Your task to perform on an android device: Open Google Chrome Image 0: 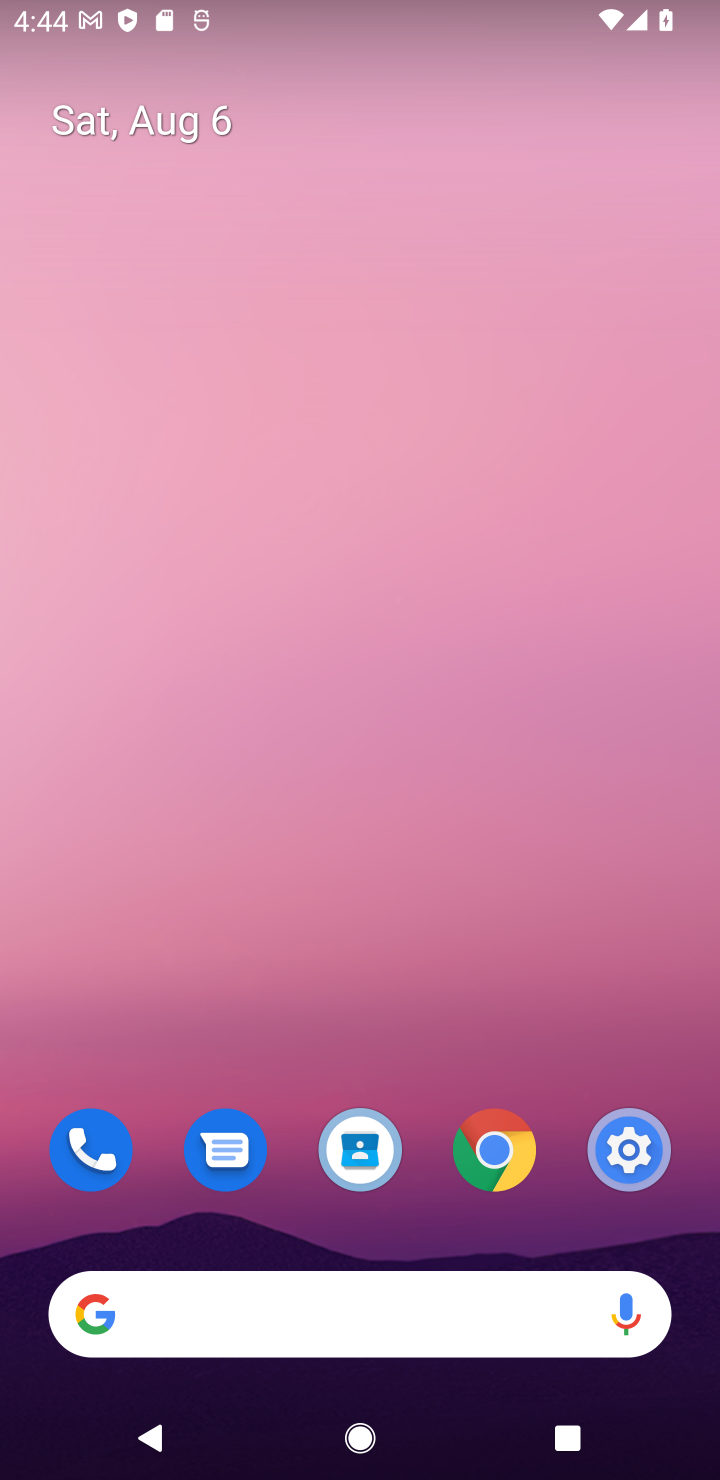
Step 0: click (485, 1146)
Your task to perform on an android device: Open Google Chrome Image 1: 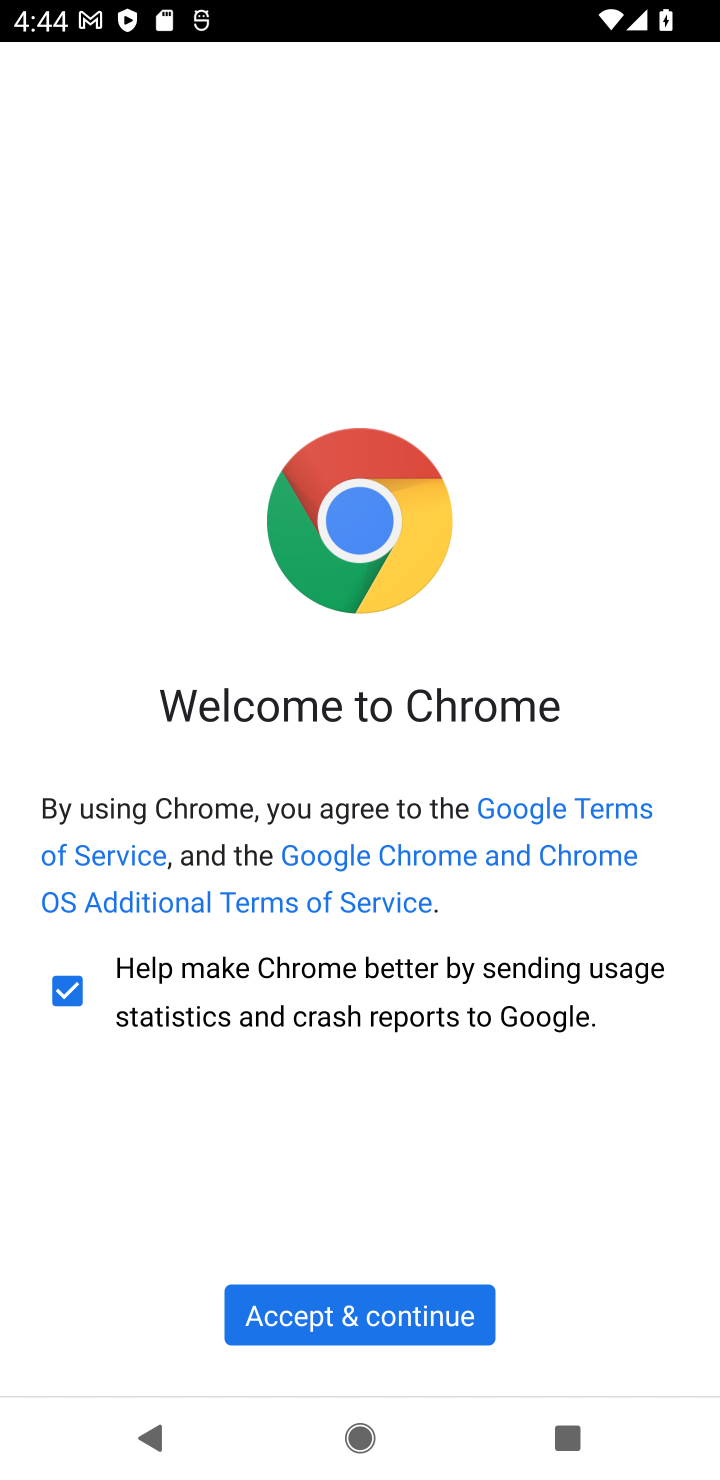
Step 1: click (376, 1299)
Your task to perform on an android device: Open Google Chrome Image 2: 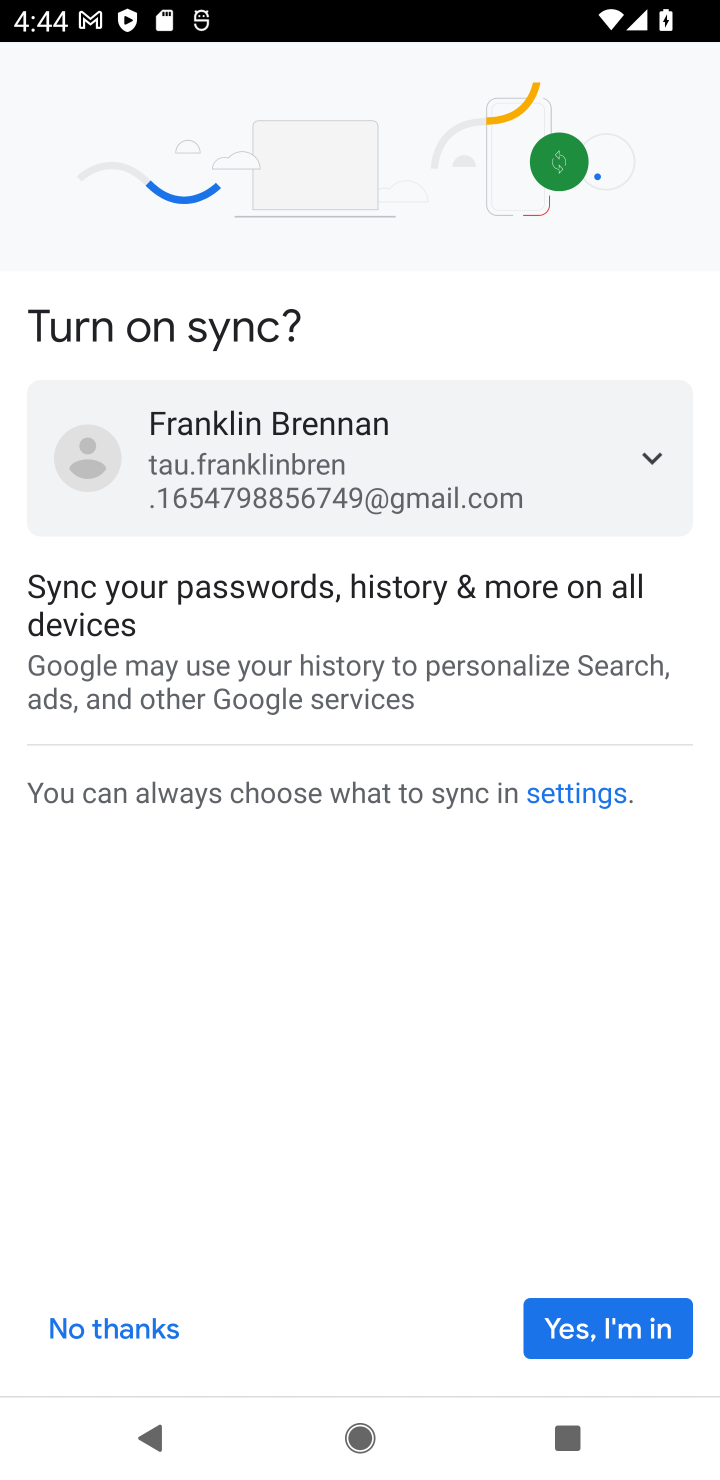
Step 2: click (558, 1350)
Your task to perform on an android device: Open Google Chrome Image 3: 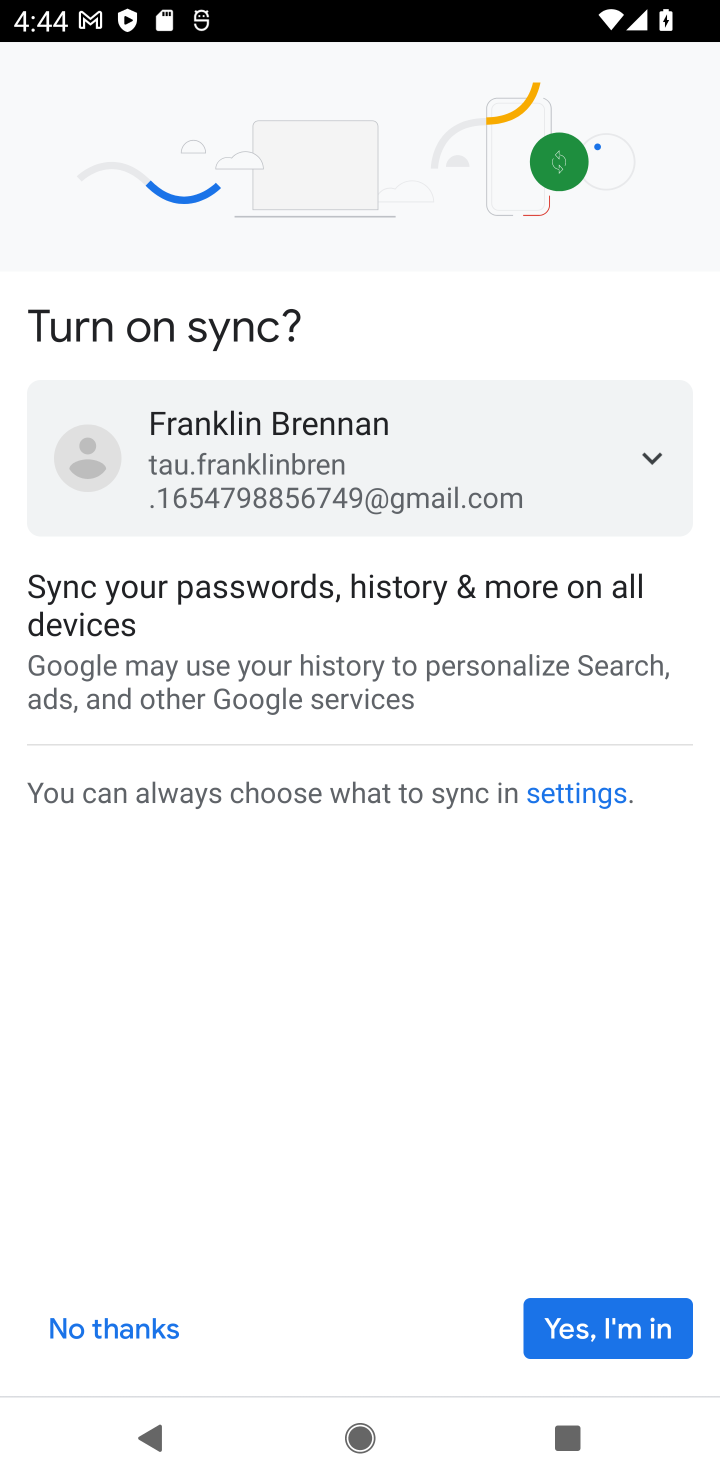
Step 3: click (596, 1342)
Your task to perform on an android device: Open Google Chrome Image 4: 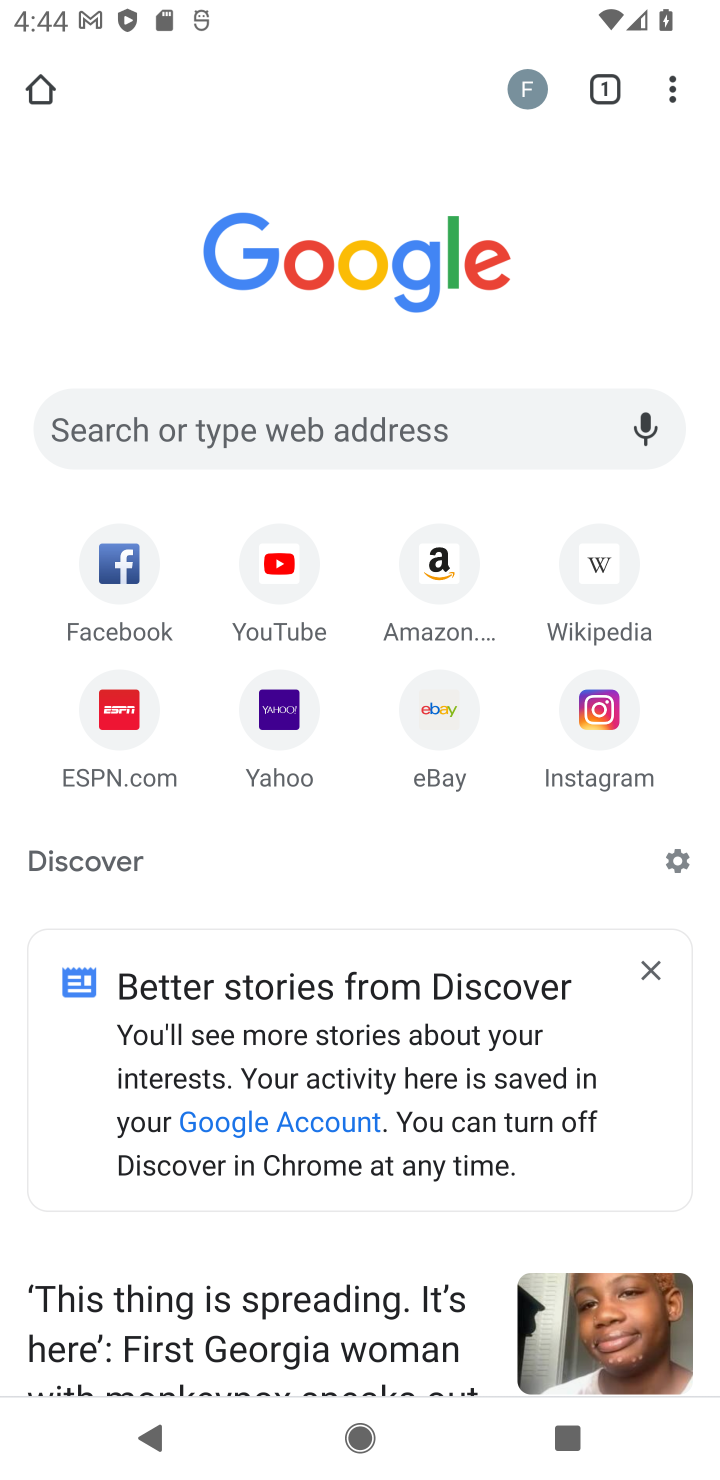
Step 4: task complete